Your task to perform on an android device: manage bookmarks in the chrome app Image 0: 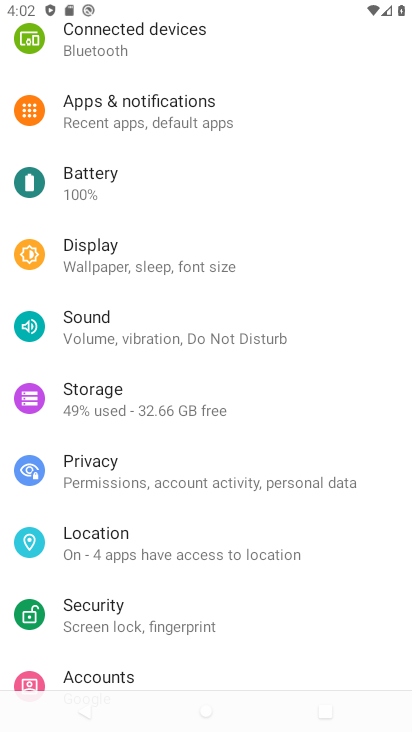
Step 0: press home button
Your task to perform on an android device: manage bookmarks in the chrome app Image 1: 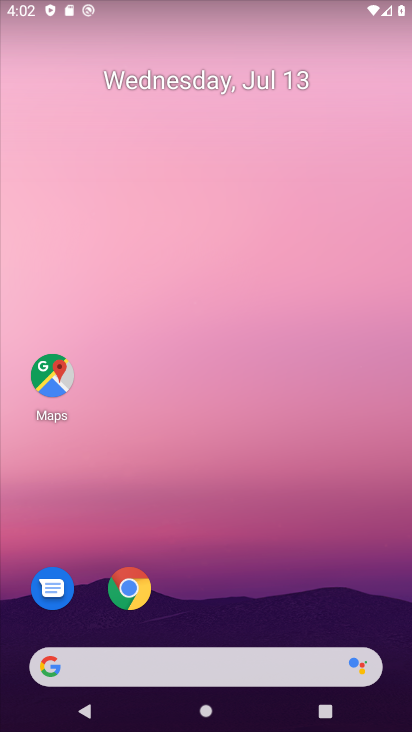
Step 1: drag from (40, 685) to (173, 184)
Your task to perform on an android device: manage bookmarks in the chrome app Image 2: 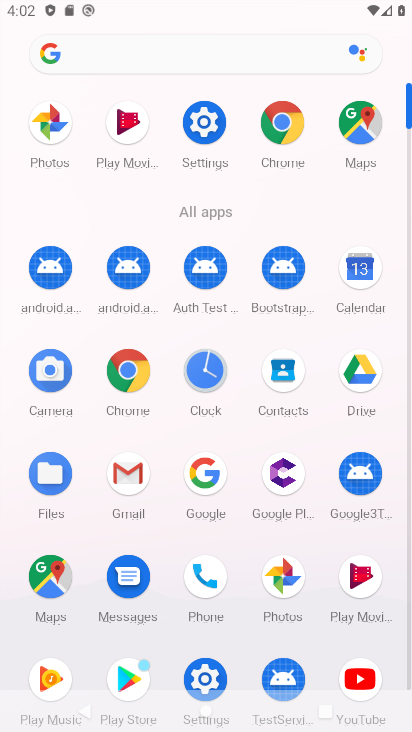
Step 2: click (264, 146)
Your task to perform on an android device: manage bookmarks in the chrome app Image 3: 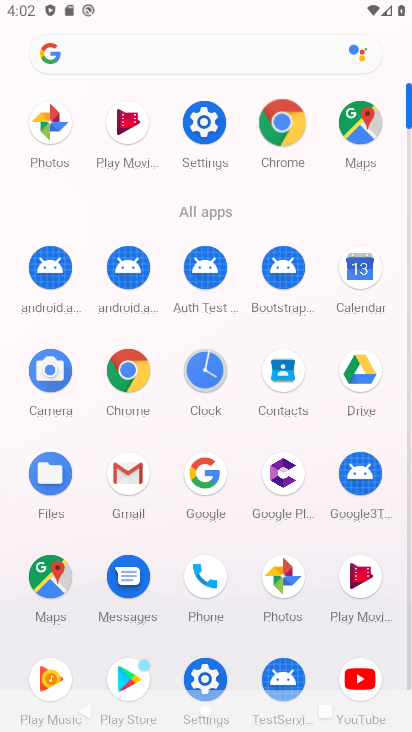
Step 3: click (281, 131)
Your task to perform on an android device: manage bookmarks in the chrome app Image 4: 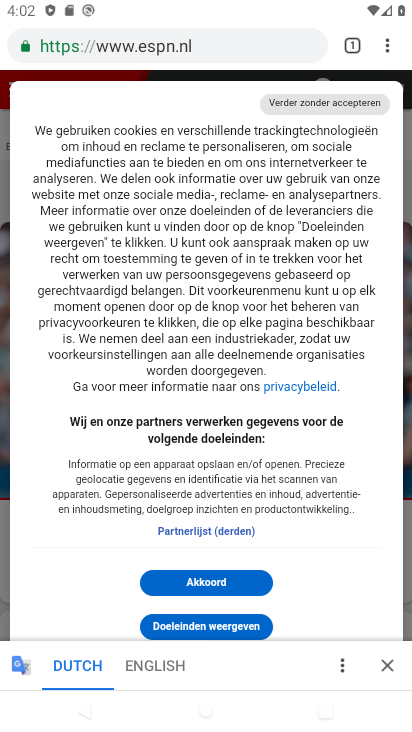
Step 4: click (384, 39)
Your task to perform on an android device: manage bookmarks in the chrome app Image 5: 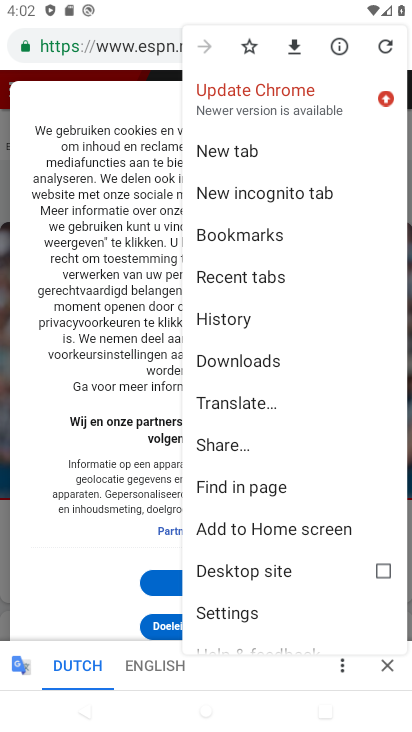
Step 5: click (207, 228)
Your task to perform on an android device: manage bookmarks in the chrome app Image 6: 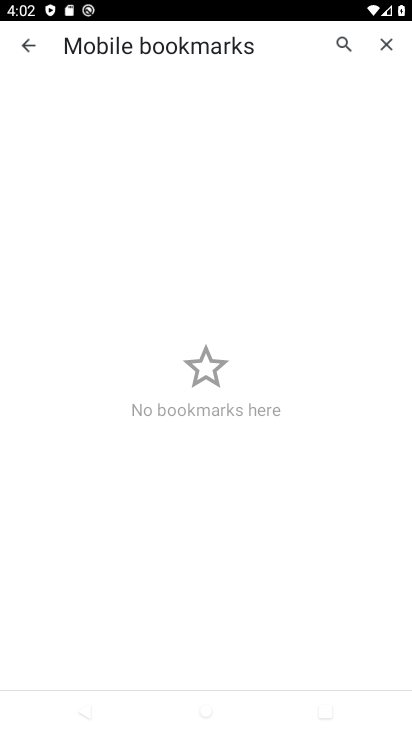
Step 6: task complete